Your task to perform on an android device: Open location settings Image 0: 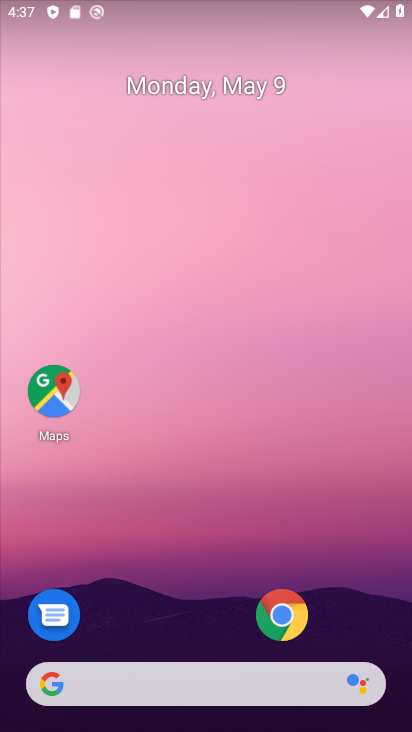
Step 0: drag from (164, 647) to (172, 258)
Your task to perform on an android device: Open location settings Image 1: 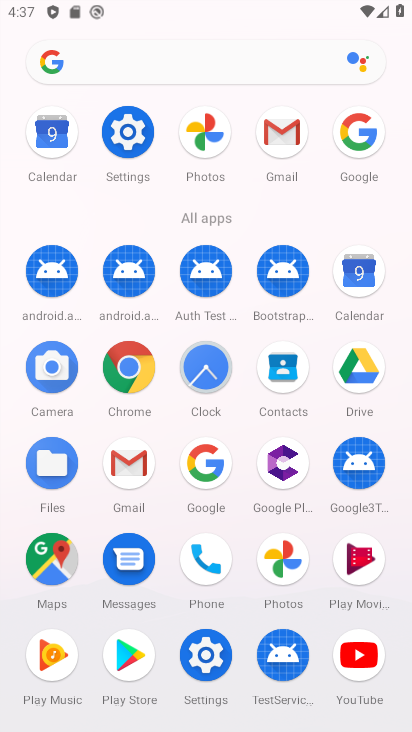
Step 1: click (110, 146)
Your task to perform on an android device: Open location settings Image 2: 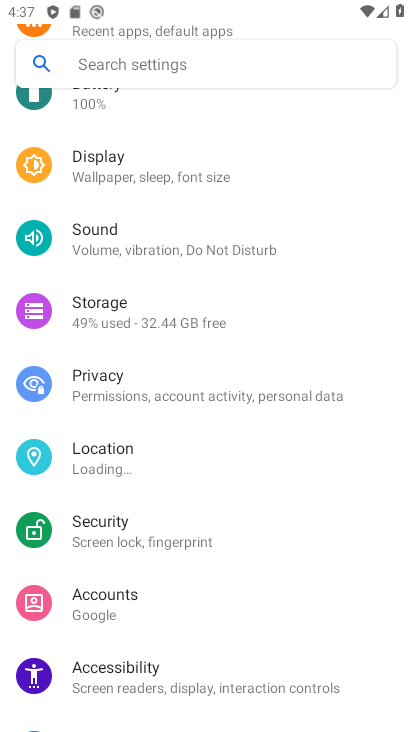
Step 2: click (100, 454)
Your task to perform on an android device: Open location settings Image 3: 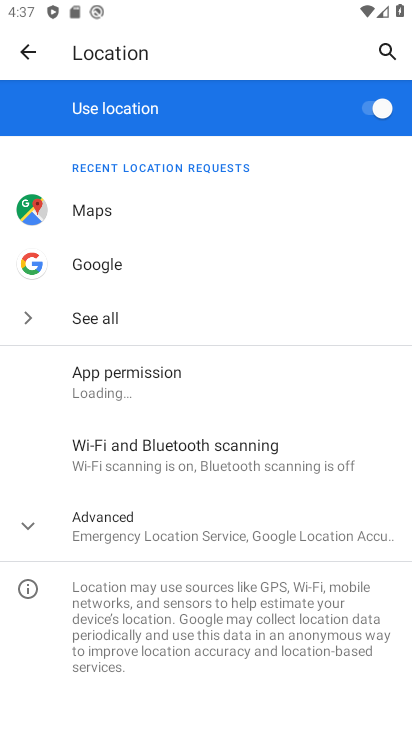
Step 3: click (98, 517)
Your task to perform on an android device: Open location settings Image 4: 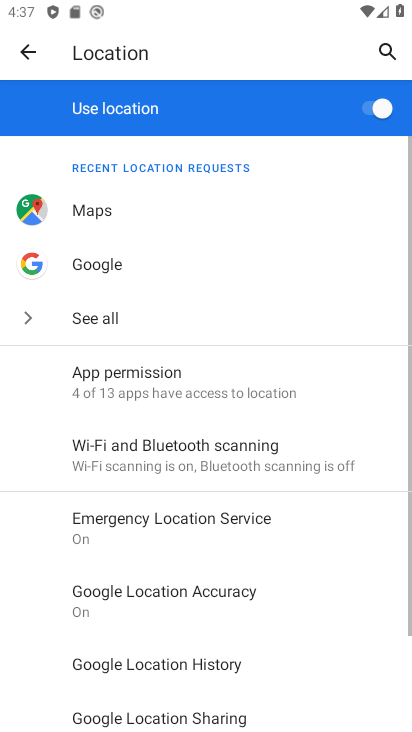
Step 4: task complete